Your task to perform on an android device: Open battery settings Image 0: 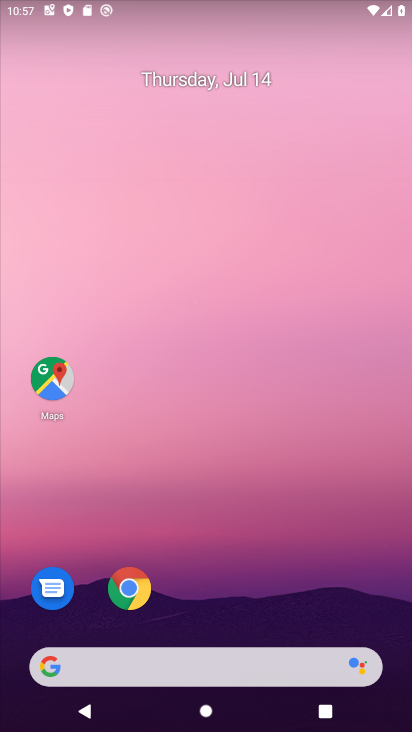
Step 0: drag from (356, 641) to (276, 44)
Your task to perform on an android device: Open battery settings Image 1: 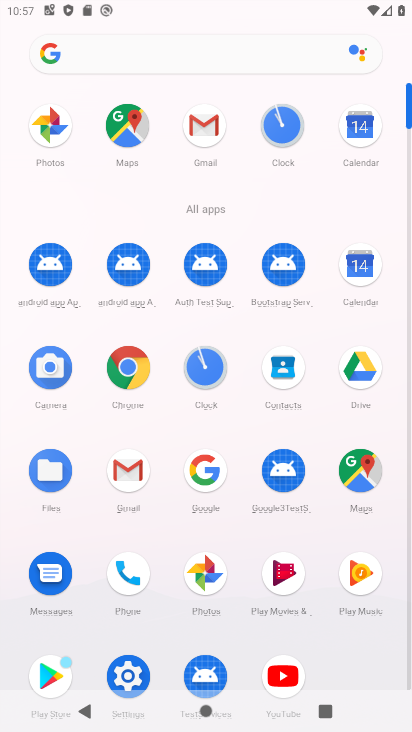
Step 1: click (126, 674)
Your task to perform on an android device: Open battery settings Image 2: 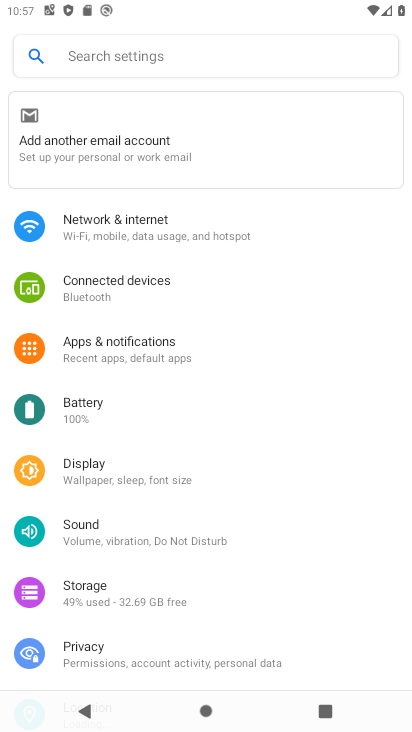
Step 2: click (87, 417)
Your task to perform on an android device: Open battery settings Image 3: 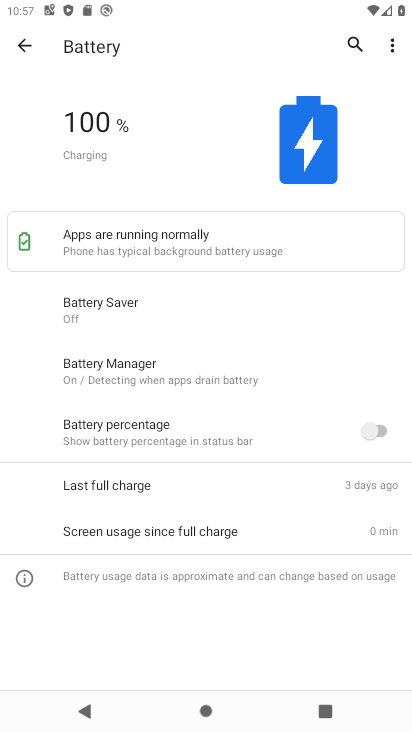
Step 3: task complete